Your task to perform on an android device: Open the stopwatch Image 0: 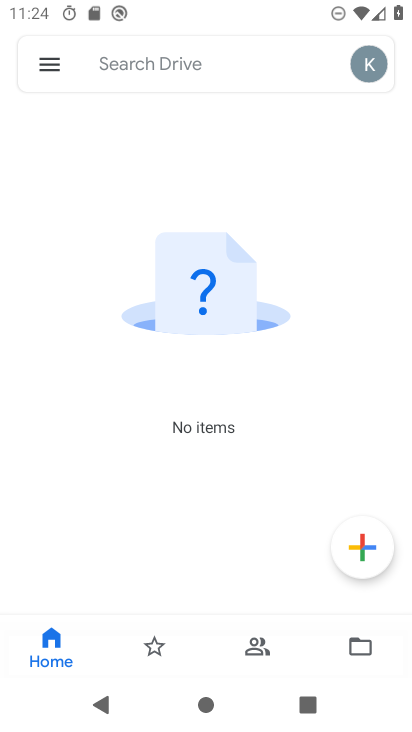
Step 0: press home button
Your task to perform on an android device: Open the stopwatch Image 1: 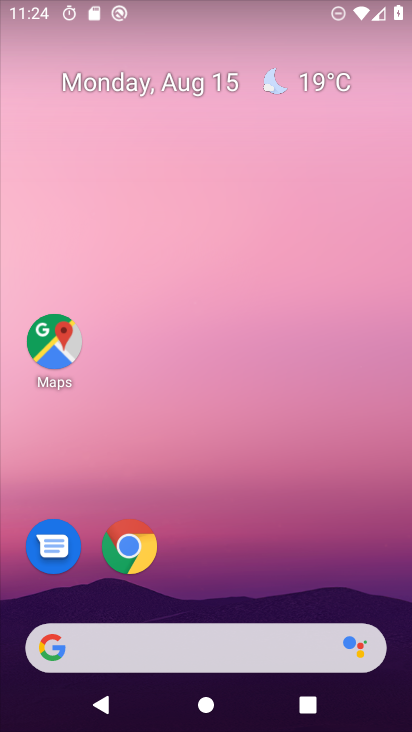
Step 1: drag from (207, 538) to (198, 93)
Your task to perform on an android device: Open the stopwatch Image 2: 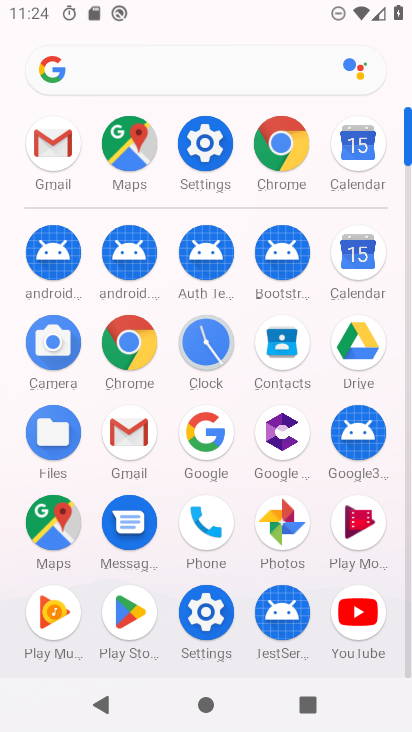
Step 2: click (211, 343)
Your task to perform on an android device: Open the stopwatch Image 3: 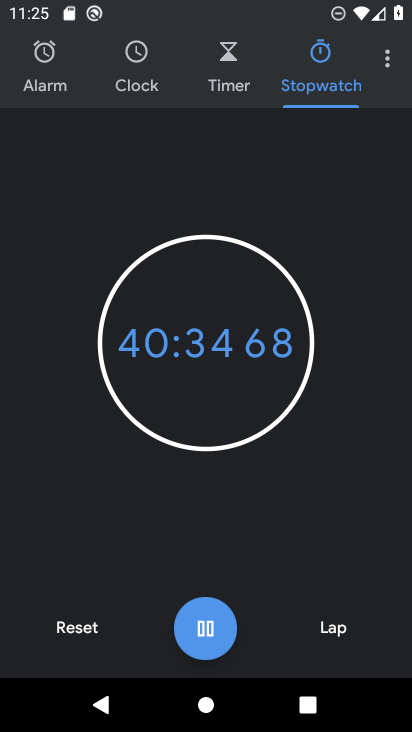
Step 3: task complete